Your task to perform on an android device: read, delete, or share a saved page in the chrome app Image 0: 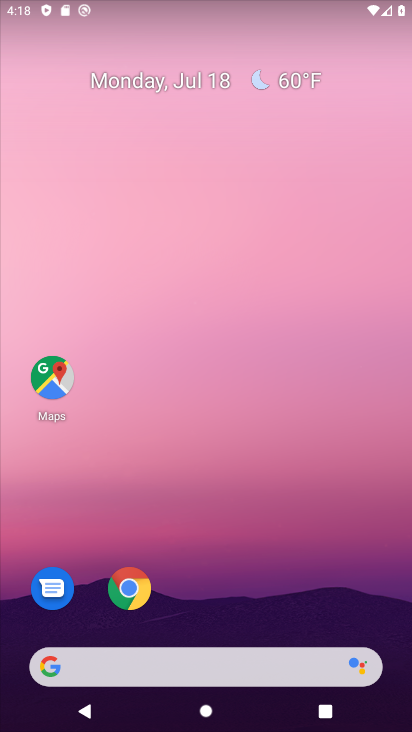
Step 0: click (124, 587)
Your task to perform on an android device: read, delete, or share a saved page in the chrome app Image 1: 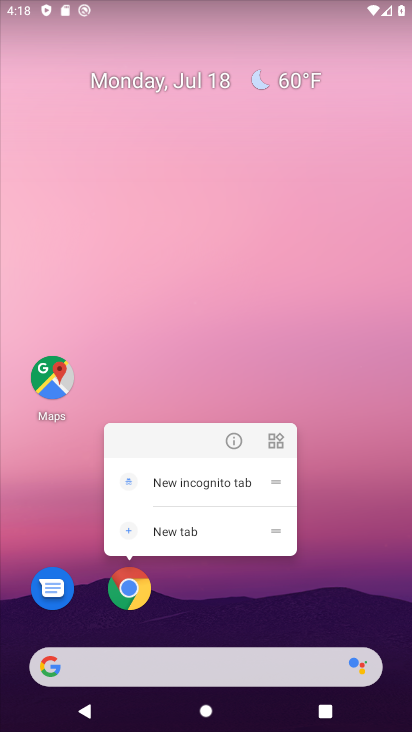
Step 1: click (126, 585)
Your task to perform on an android device: read, delete, or share a saved page in the chrome app Image 2: 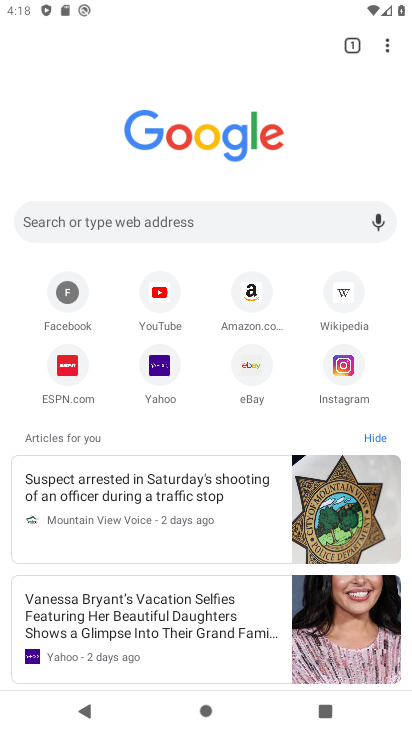
Step 2: click (391, 47)
Your task to perform on an android device: read, delete, or share a saved page in the chrome app Image 3: 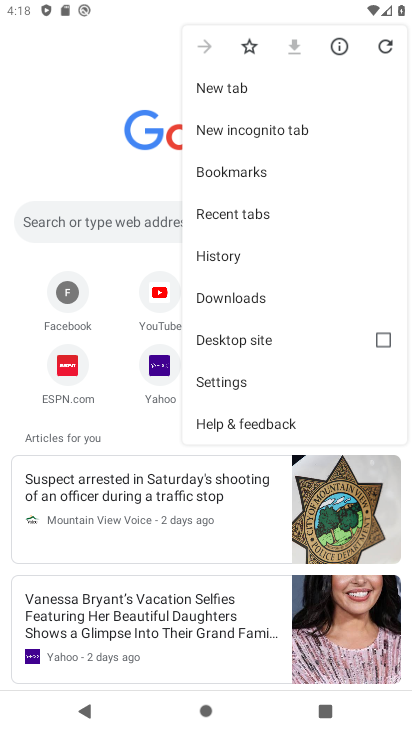
Step 3: click (274, 296)
Your task to perform on an android device: read, delete, or share a saved page in the chrome app Image 4: 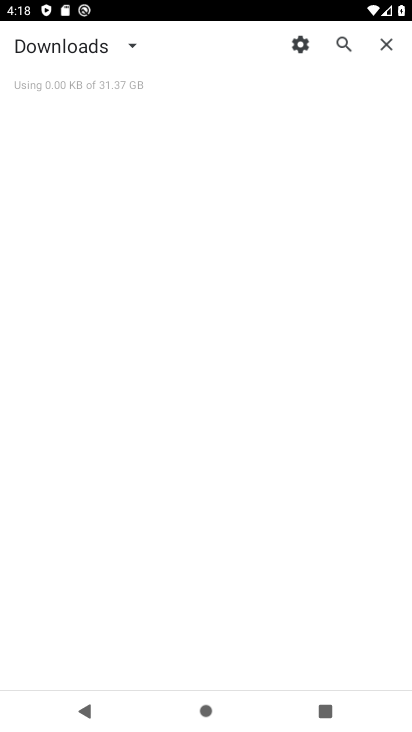
Step 4: task complete